Your task to perform on an android device: add a contact Image 0: 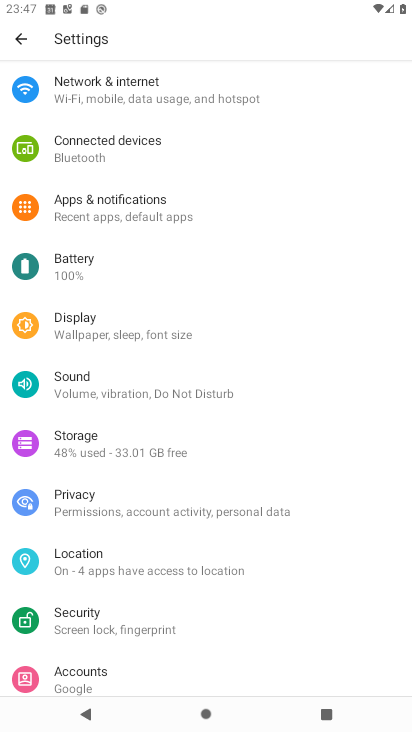
Step 0: press home button
Your task to perform on an android device: add a contact Image 1: 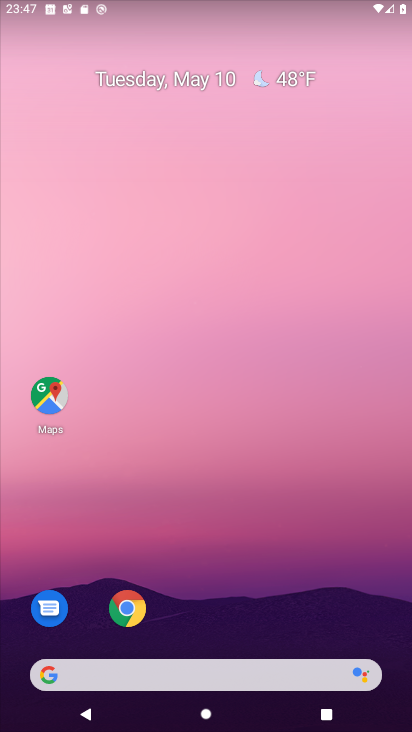
Step 1: drag from (171, 612) to (309, 116)
Your task to perform on an android device: add a contact Image 2: 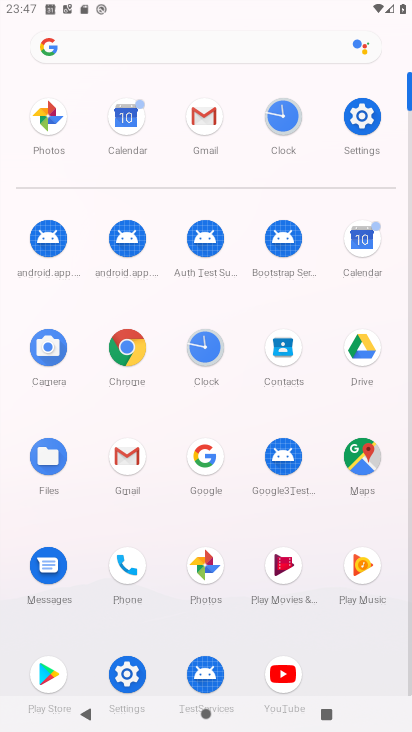
Step 2: click (282, 344)
Your task to perform on an android device: add a contact Image 3: 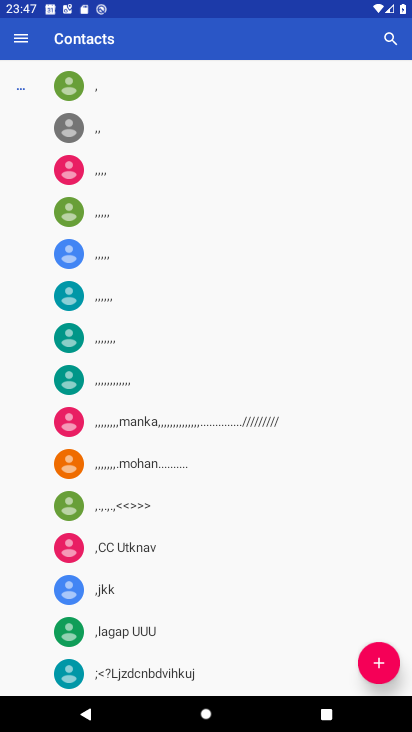
Step 3: click (381, 674)
Your task to perform on an android device: add a contact Image 4: 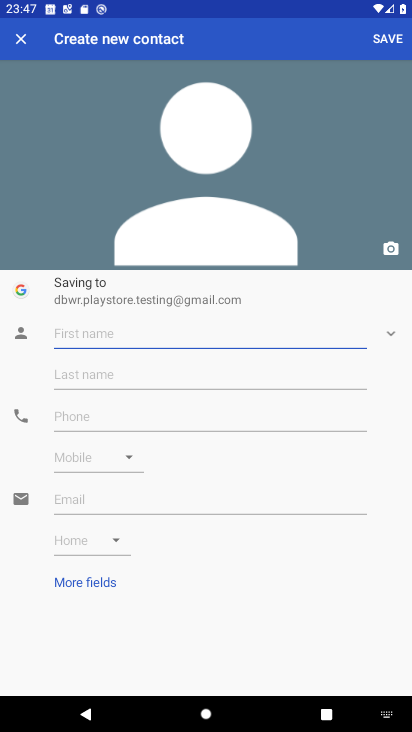
Step 4: click (88, 337)
Your task to perform on an android device: add a contact Image 5: 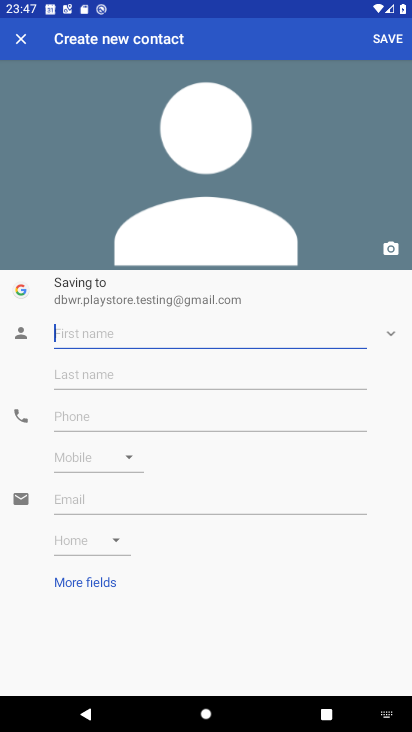
Step 5: type "naliz"
Your task to perform on an android device: add a contact Image 6: 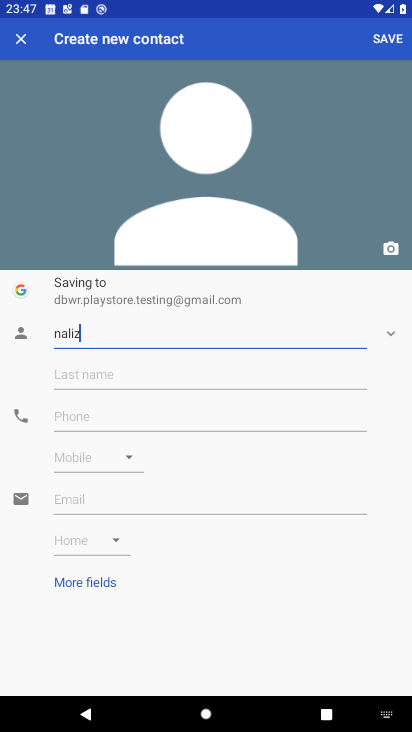
Step 6: click (166, 431)
Your task to perform on an android device: add a contact Image 7: 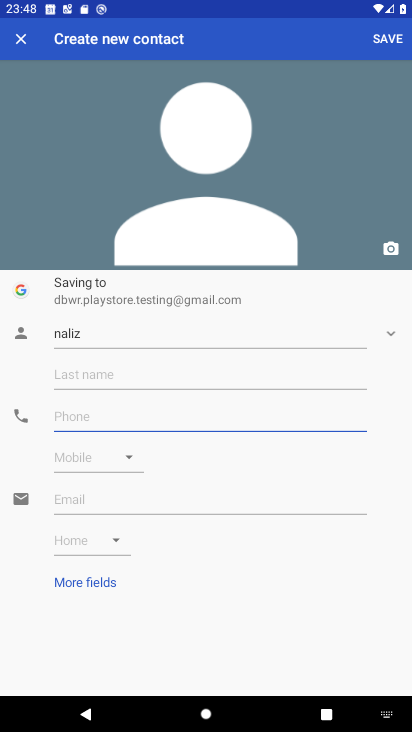
Step 7: type "23333555555"
Your task to perform on an android device: add a contact Image 8: 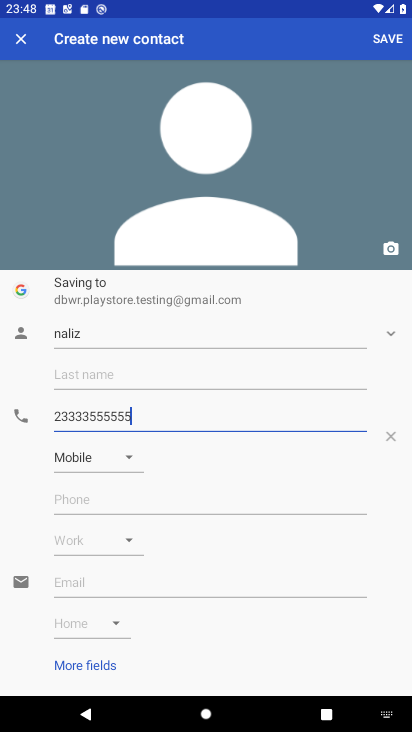
Step 8: click (390, 39)
Your task to perform on an android device: add a contact Image 9: 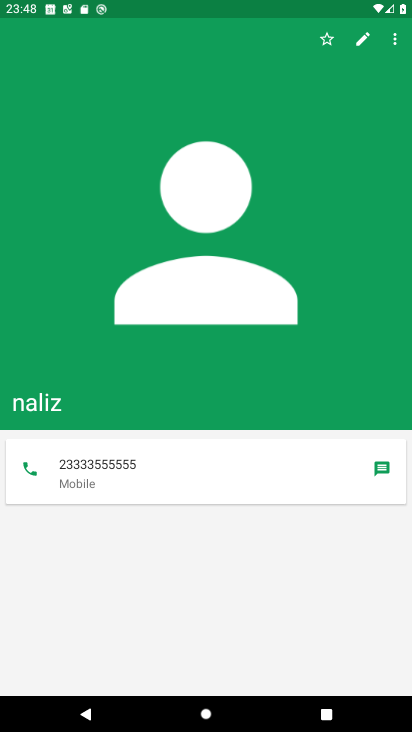
Step 9: task complete